Your task to perform on an android device: turn smart compose on in the gmail app Image 0: 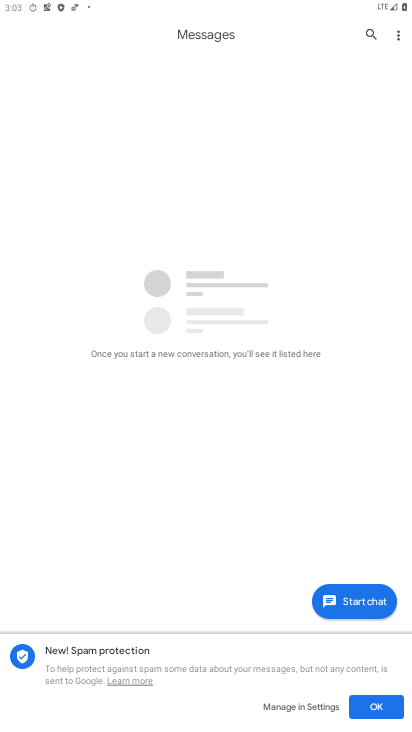
Step 0: press home button
Your task to perform on an android device: turn smart compose on in the gmail app Image 1: 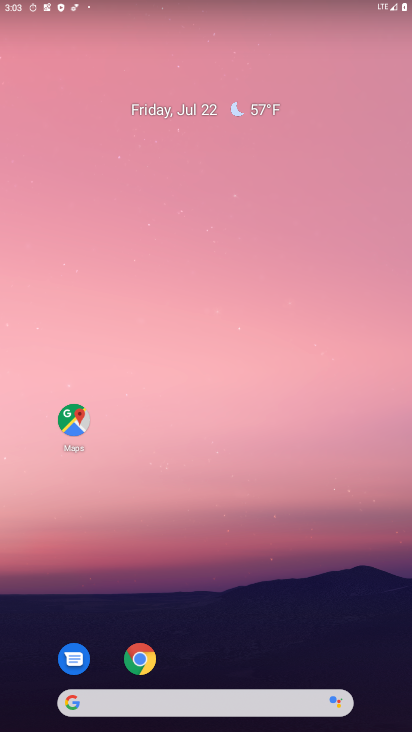
Step 1: drag from (229, 598) to (173, 3)
Your task to perform on an android device: turn smart compose on in the gmail app Image 2: 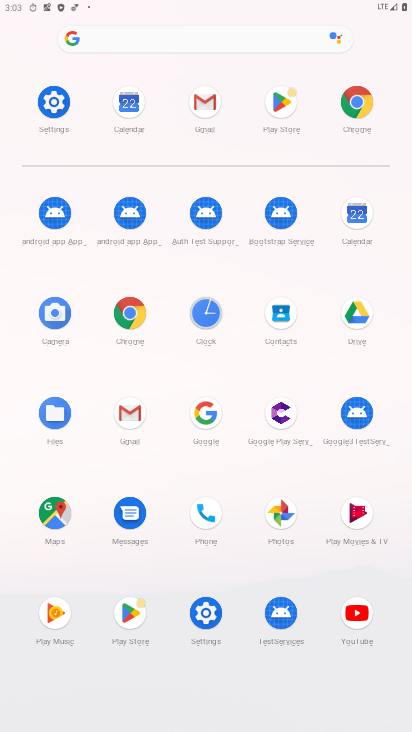
Step 2: click (125, 413)
Your task to perform on an android device: turn smart compose on in the gmail app Image 3: 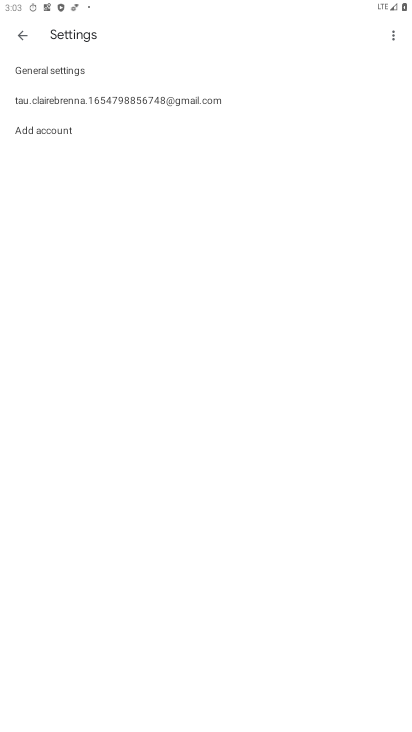
Step 3: click (115, 97)
Your task to perform on an android device: turn smart compose on in the gmail app Image 4: 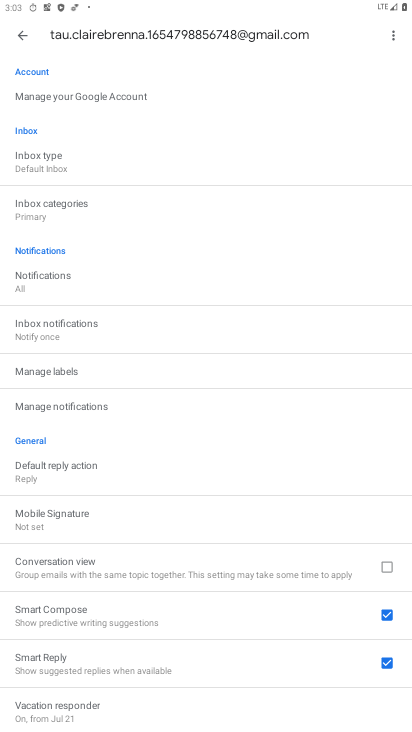
Step 4: task complete